Your task to perform on an android device: turn off sleep mode Image 0: 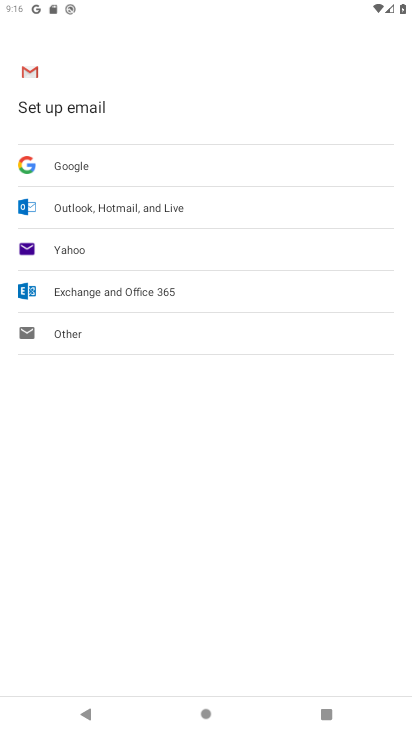
Step 0: press home button
Your task to perform on an android device: turn off sleep mode Image 1: 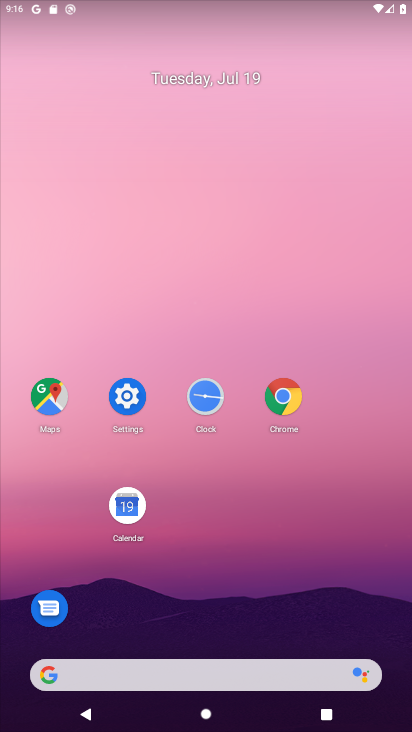
Step 1: click (128, 399)
Your task to perform on an android device: turn off sleep mode Image 2: 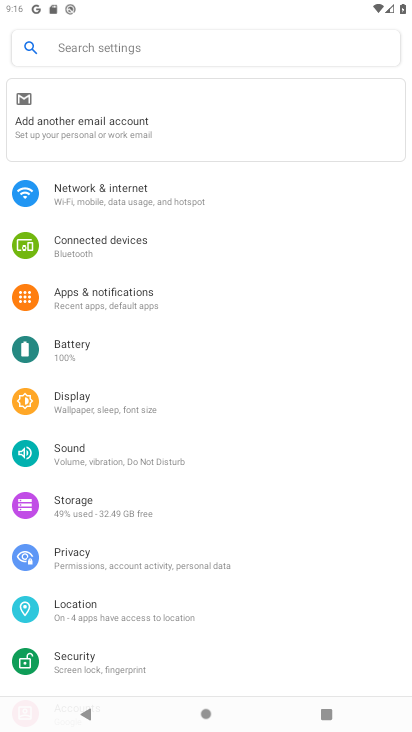
Step 2: click (76, 400)
Your task to perform on an android device: turn off sleep mode Image 3: 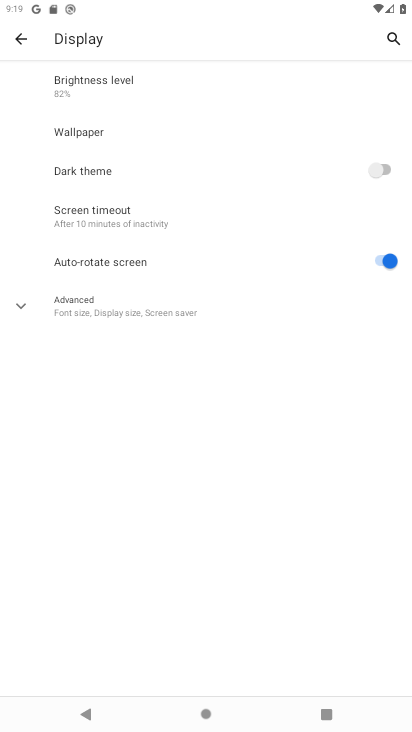
Step 3: click (76, 215)
Your task to perform on an android device: turn off sleep mode Image 4: 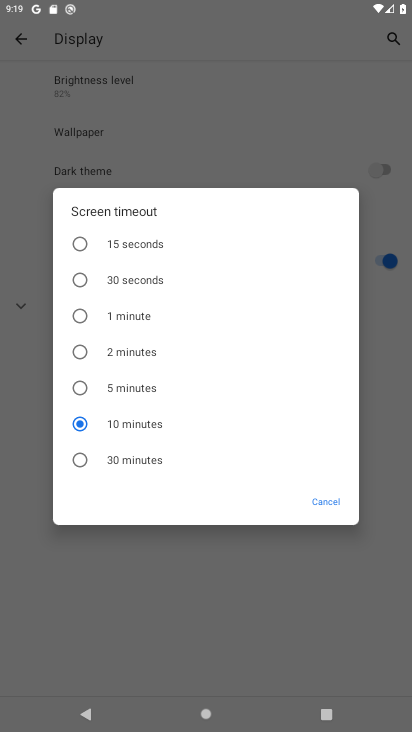
Step 4: task complete